Your task to perform on an android device: Go to ESPN.com Image 0: 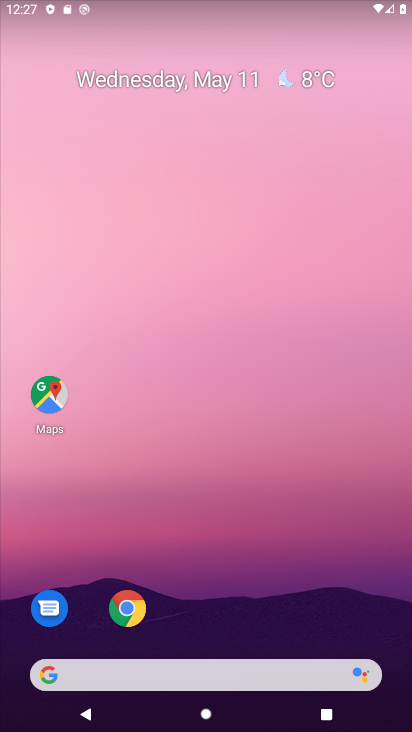
Step 0: click (125, 608)
Your task to perform on an android device: Go to ESPN.com Image 1: 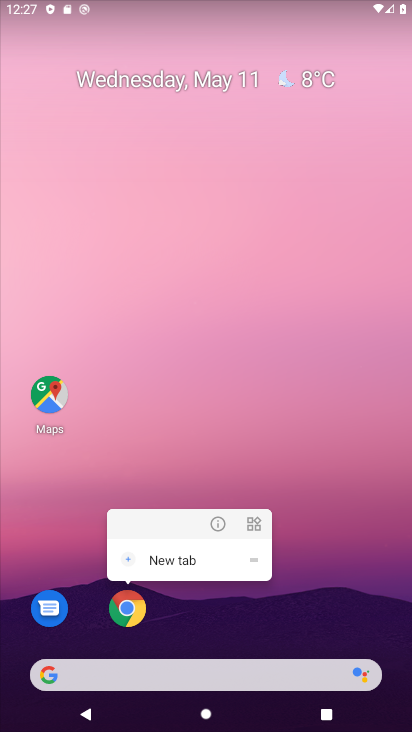
Step 1: click (125, 608)
Your task to perform on an android device: Go to ESPN.com Image 2: 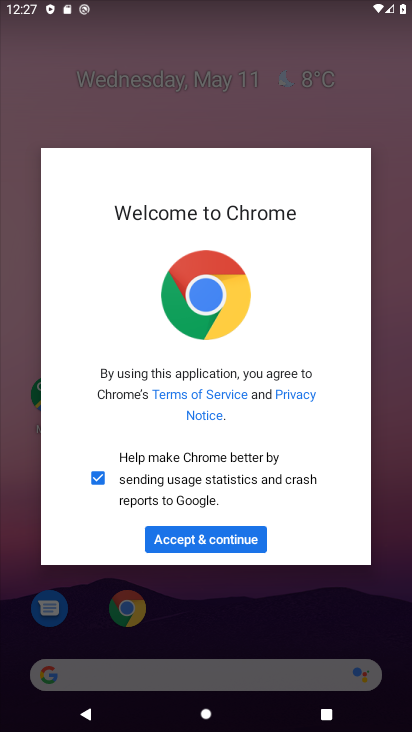
Step 2: click (242, 535)
Your task to perform on an android device: Go to ESPN.com Image 3: 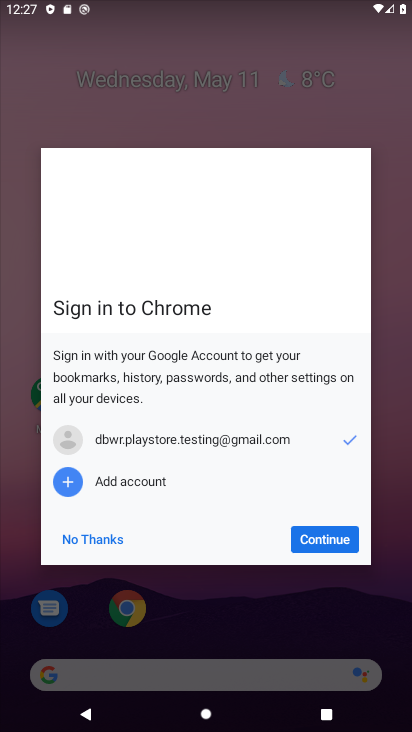
Step 3: click (354, 544)
Your task to perform on an android device: Go to ESPN.com Image 4: 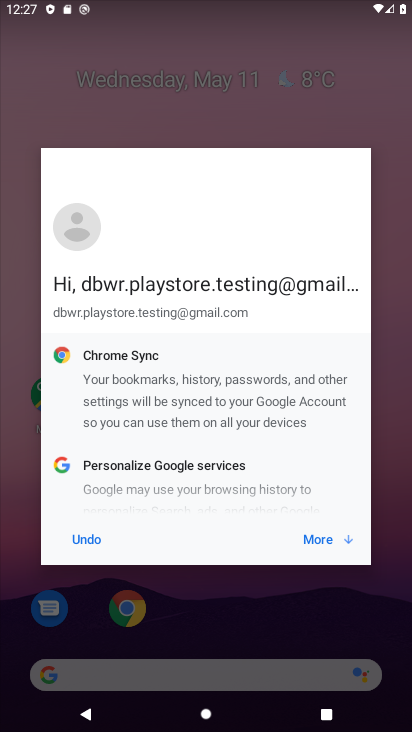
Step 4: click (344, 541)
Your task to perform on an android device: Go to ESPN.com Image 5: 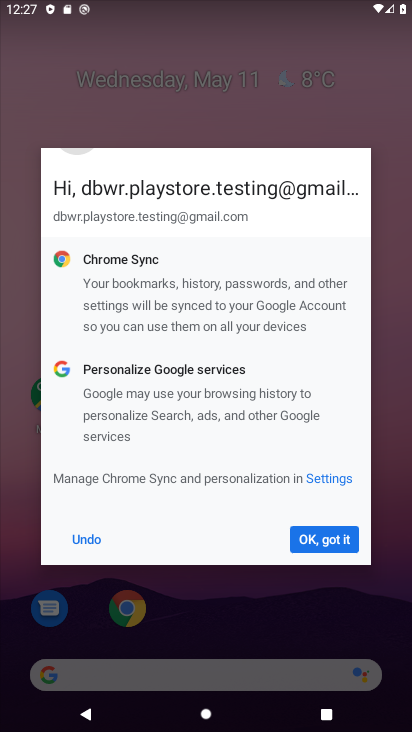
Step 5: click (344, 541)
Your task to perform on an android device: Go to ESPN.com Image 6: 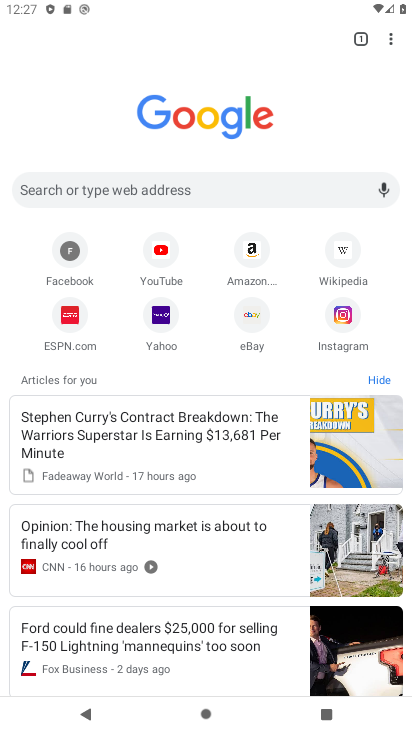
Step 6: click (75, 315)
Your task to perform on an android device: Go to ESPN.com Image 7: 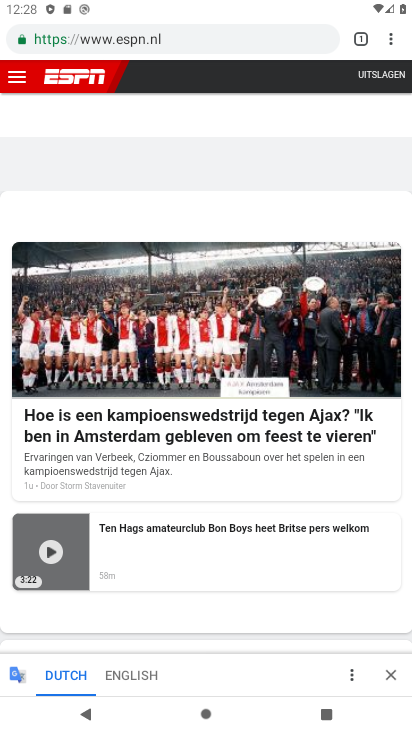
Step 7: task complete